Your task to perform on an android device: Open privacy settings Image 0: 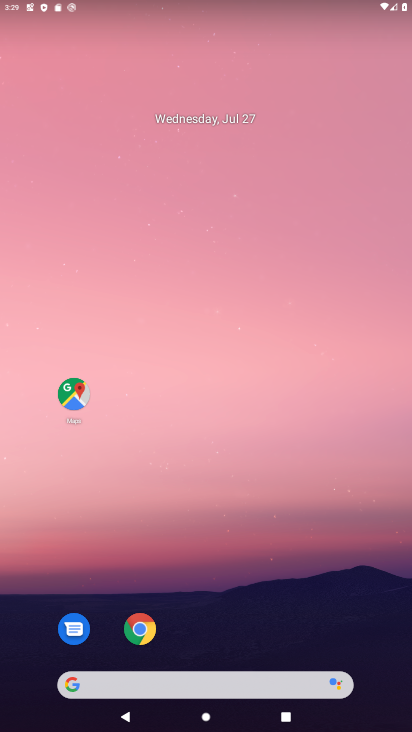
Step 0: drag from (282, 487) to (254, 51)
Your task to perform on an android device: Open privacy settings Image 1: 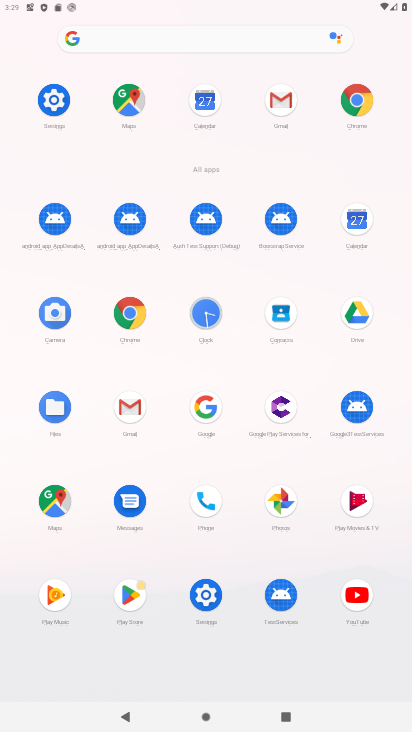
Step 1: click (44, 95)
Your task to perform on an android device: Open privacy settings Image 2: 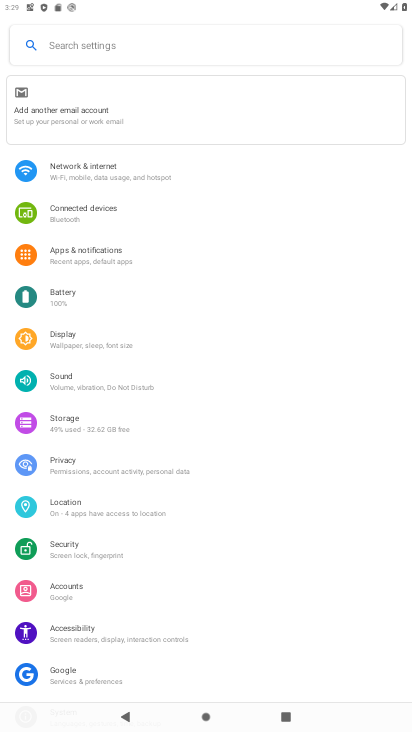
Step 2: click (77, 461)
Your task to perform on an android device: Open privacy settings Image 3: 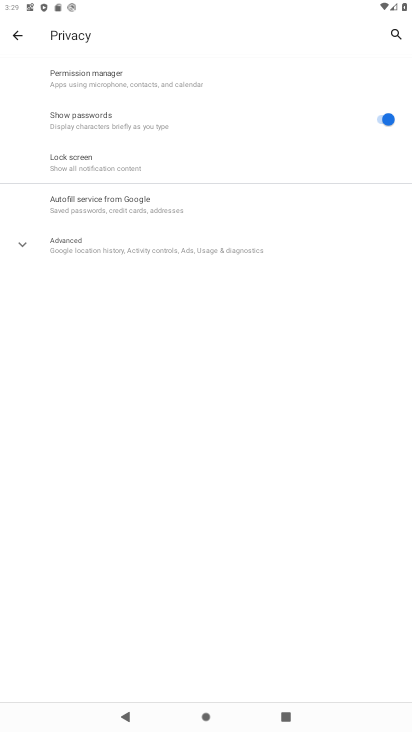
Step 3: click (164, 252)
Your task to perform on an android device: Open privacy settings Image 4: 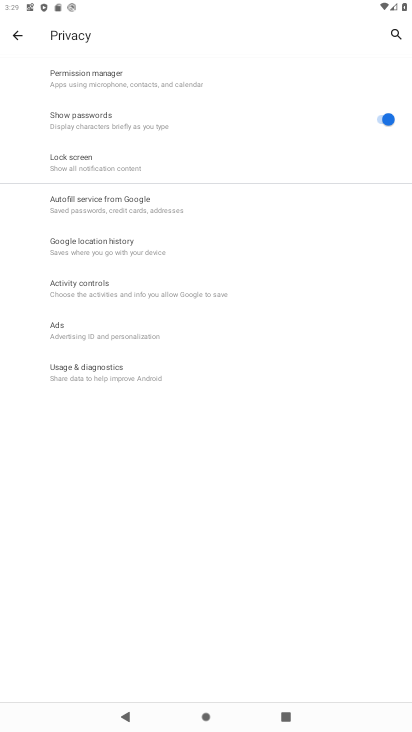
Step 4: task complete